Your task to perform on an android device: open device folders in google photos Image 0: 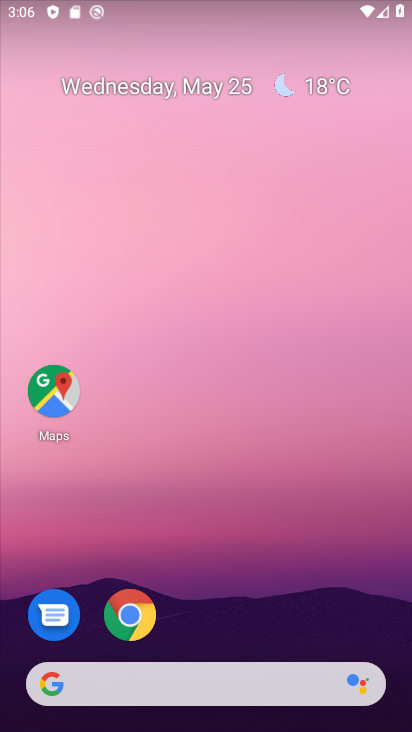
Step 0: drag from (294, 693) to (251, 150)
Your task to perform on an android device: open device folders in google photos Image 1: 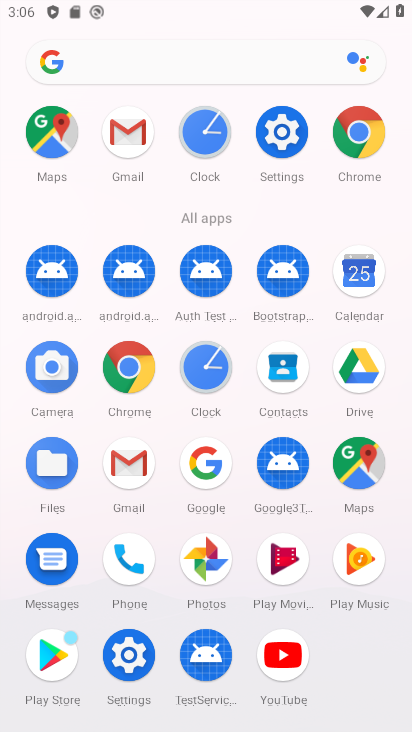
Step 1: click (202, 556)
Your task to perform on an android device: open device folders in google photos Image 2: 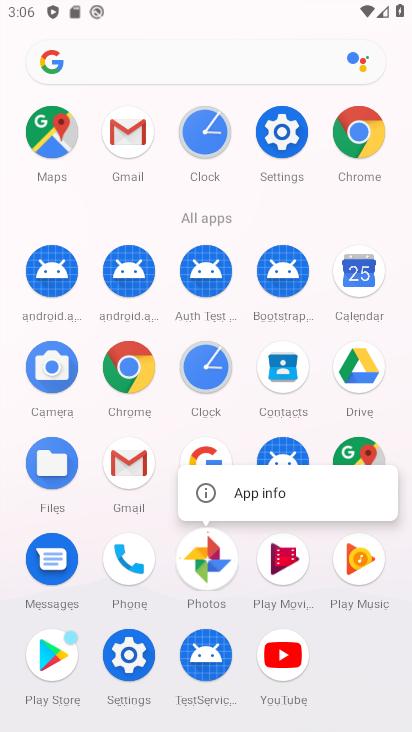
Step 2: click (202, 556)
Your task to perform on an android device: open device folders in google photos Image 3: 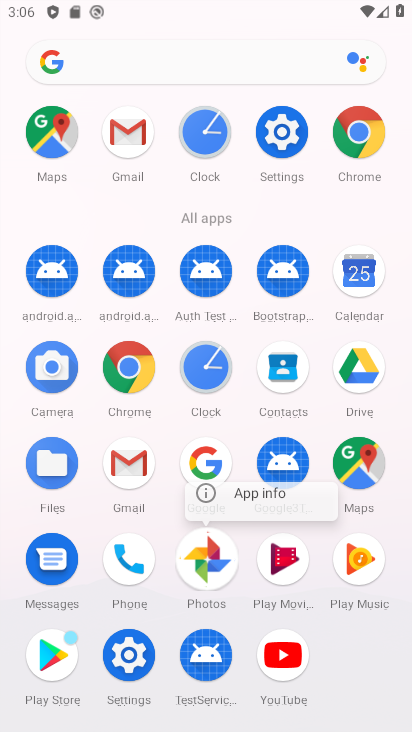
Step 3: click (202, 556)
Your task to perform on an android device: open device folders in google photos Image 4: 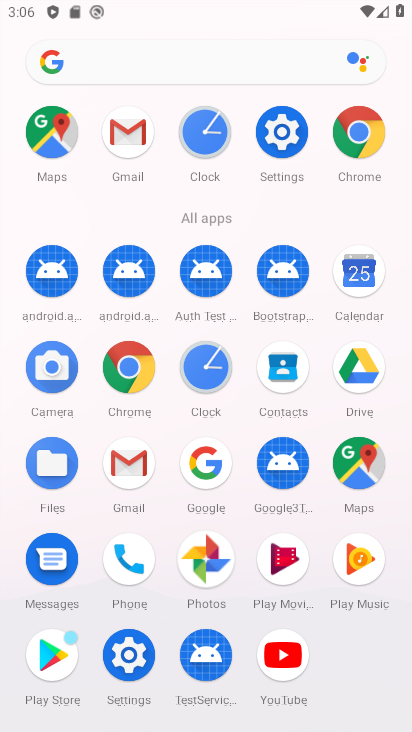
Step 4: click (205, 566)
Your task to perform on an android device: open device folders in google photos Image 5: 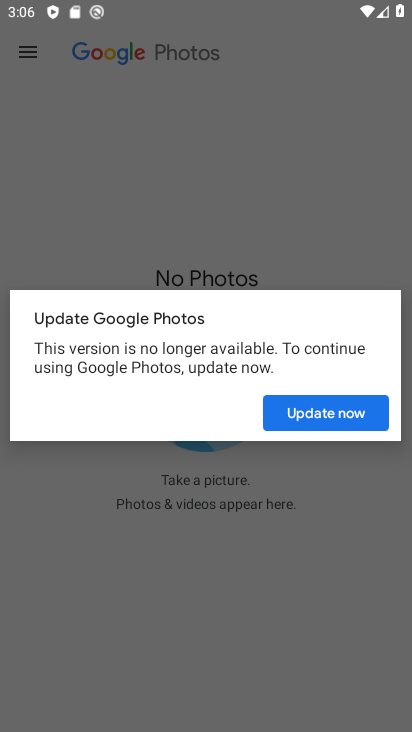
Step 5: click (287, 198)
Your task to perform on an android device: open device folders in google photos Image 6: 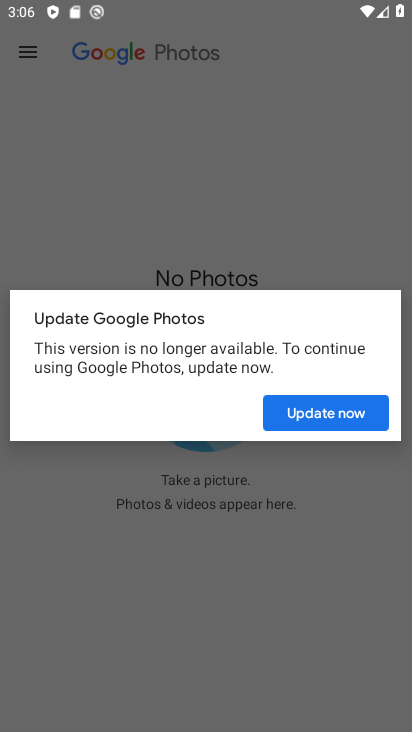
Step 6: click (287, 198)
Your task to perform on an android device: open device folders in google photos Image 7: 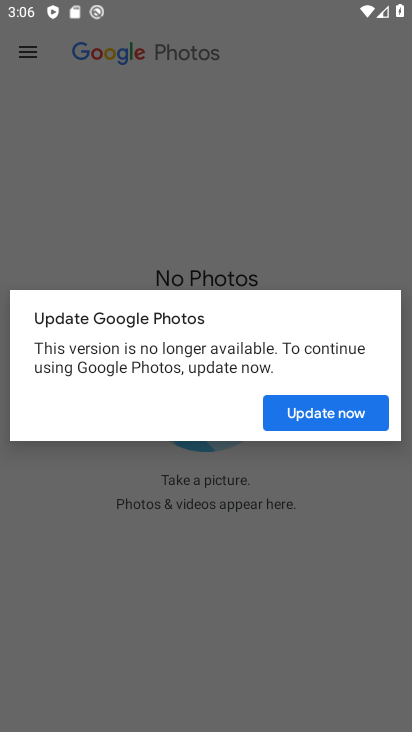
Step 7: click (287, 198)
Your task to perform on an android device: open device folders in google photos Image 8: 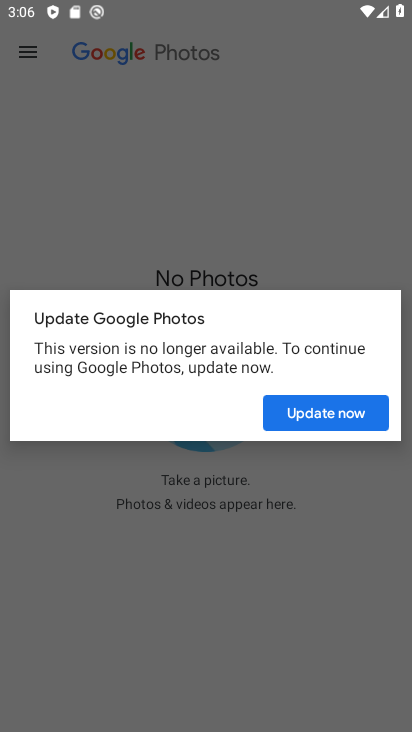
Step 8: click (349, 397)
Your task to perform on an android device: open device folders in google photos Image 9: 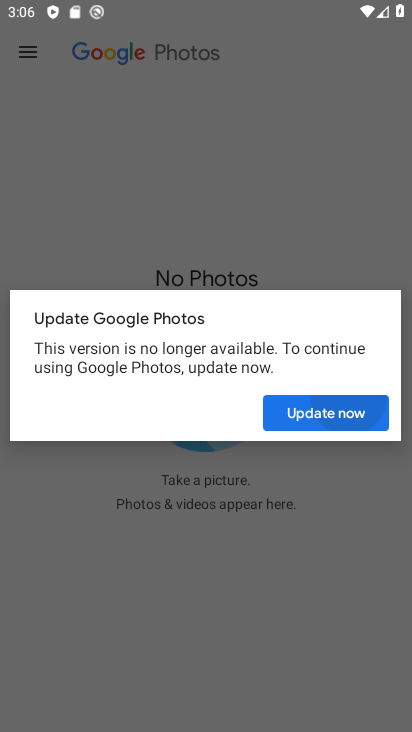
Step 9: click (348, 402)
Your task to perform on an android device: open device folders in google photos Image 10: 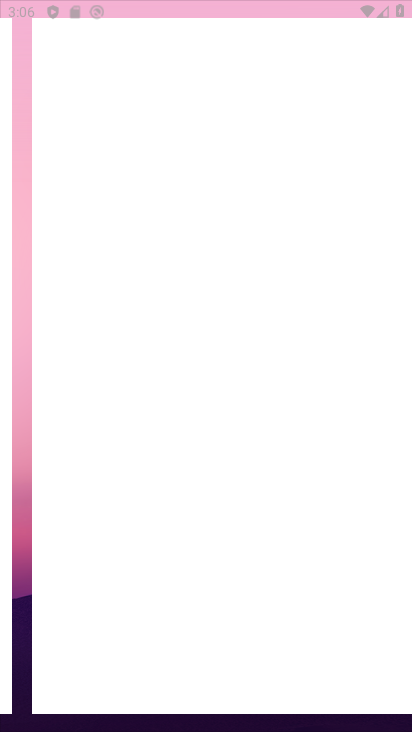
Step 10: click (349, 401)
Your task to perform on an android device: open device folders in google photos Image 11: 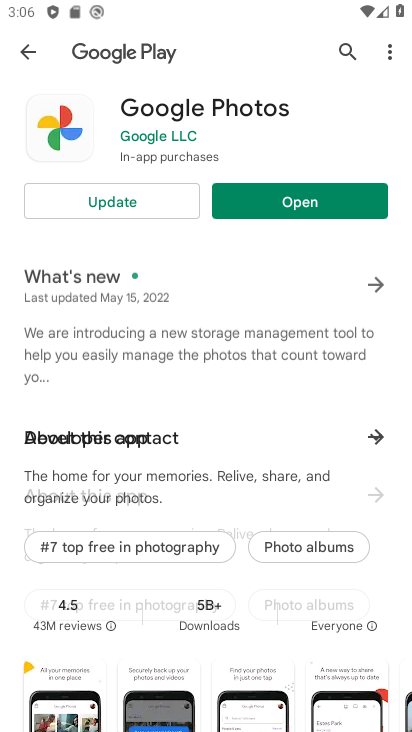
Step 11: click (137, 198)
Your task to perform on an android device: open device folders in google photos Image 12: 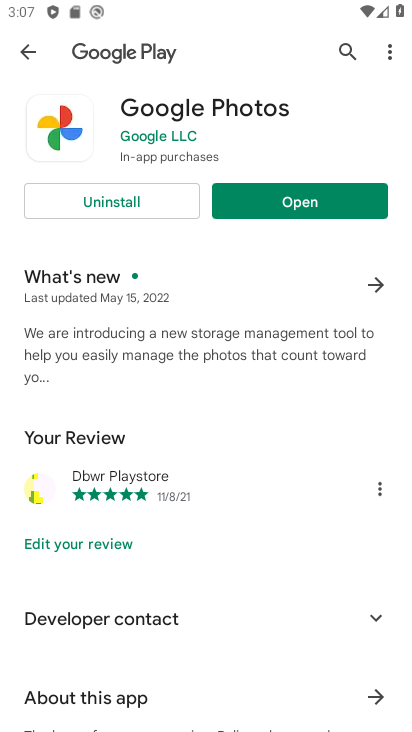
Step 12: click (310, 210)
Your task to perform on an android device: open device folders in google photos Image 13: 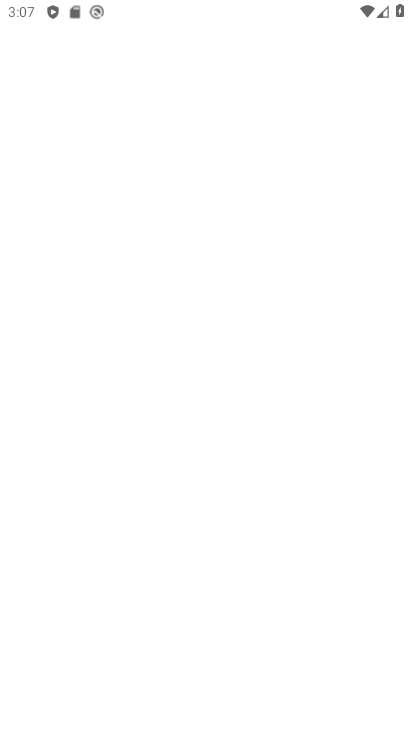
Step 13: task complete